Your task to perform on an android device: open app "Lyft - Rideshare, Bikes, Scooters & Transit" Image 0: 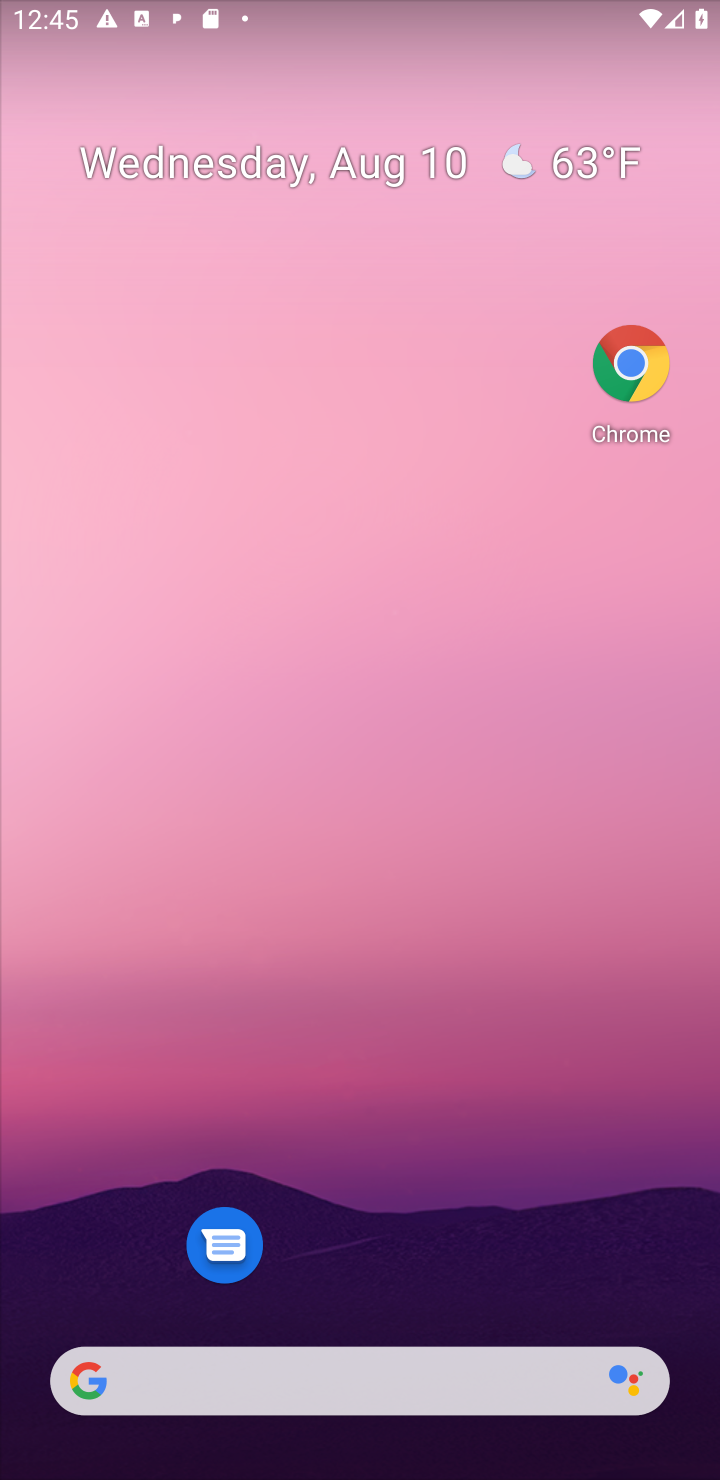
Step 0: drag from (451, 1367) to (449, 547)
Your task to perform on an android device: open app "Lyft - Rideshare, Bikes, Scooters & Transit" Image 1: 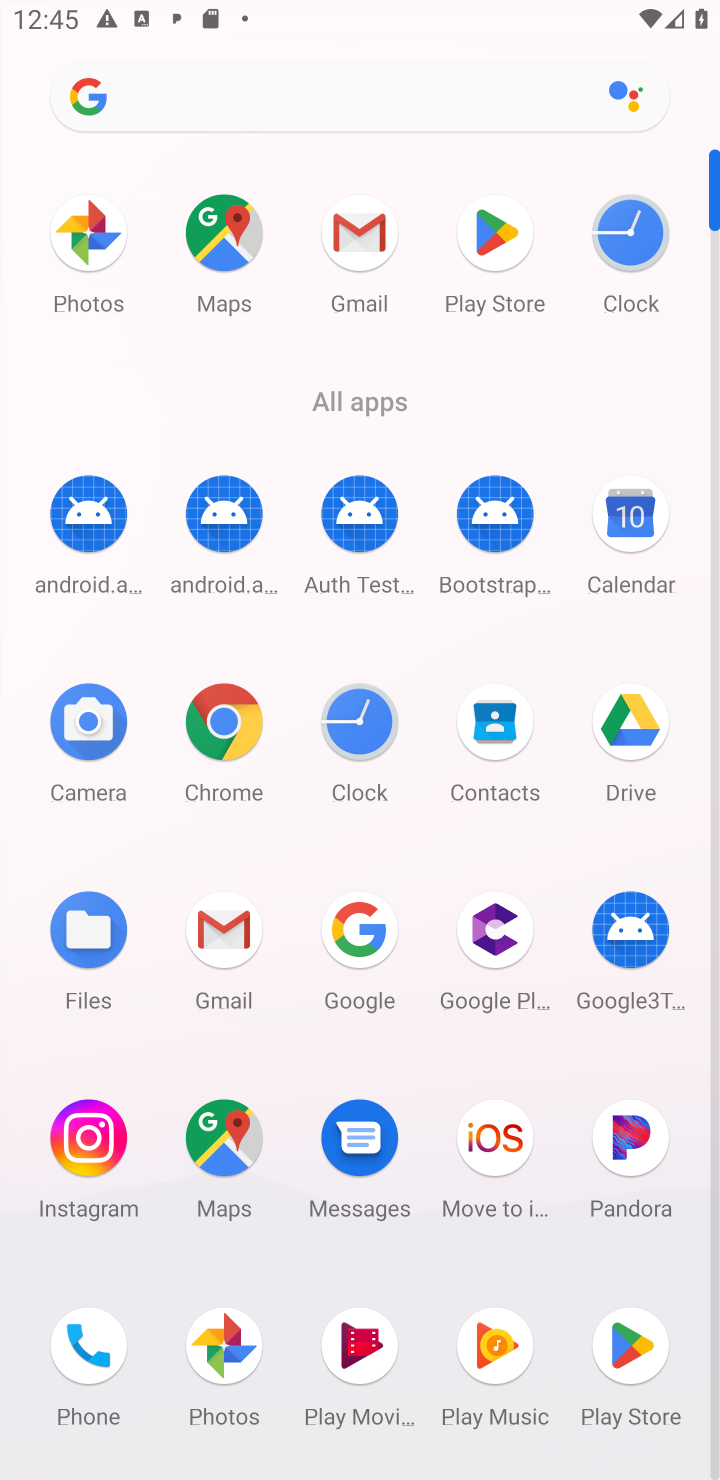
Step 1: click (483, 230)
Your task to perform on an android device: open app "Lyft - Rideshare, Bikes, Scooters & Transit" Image 2: 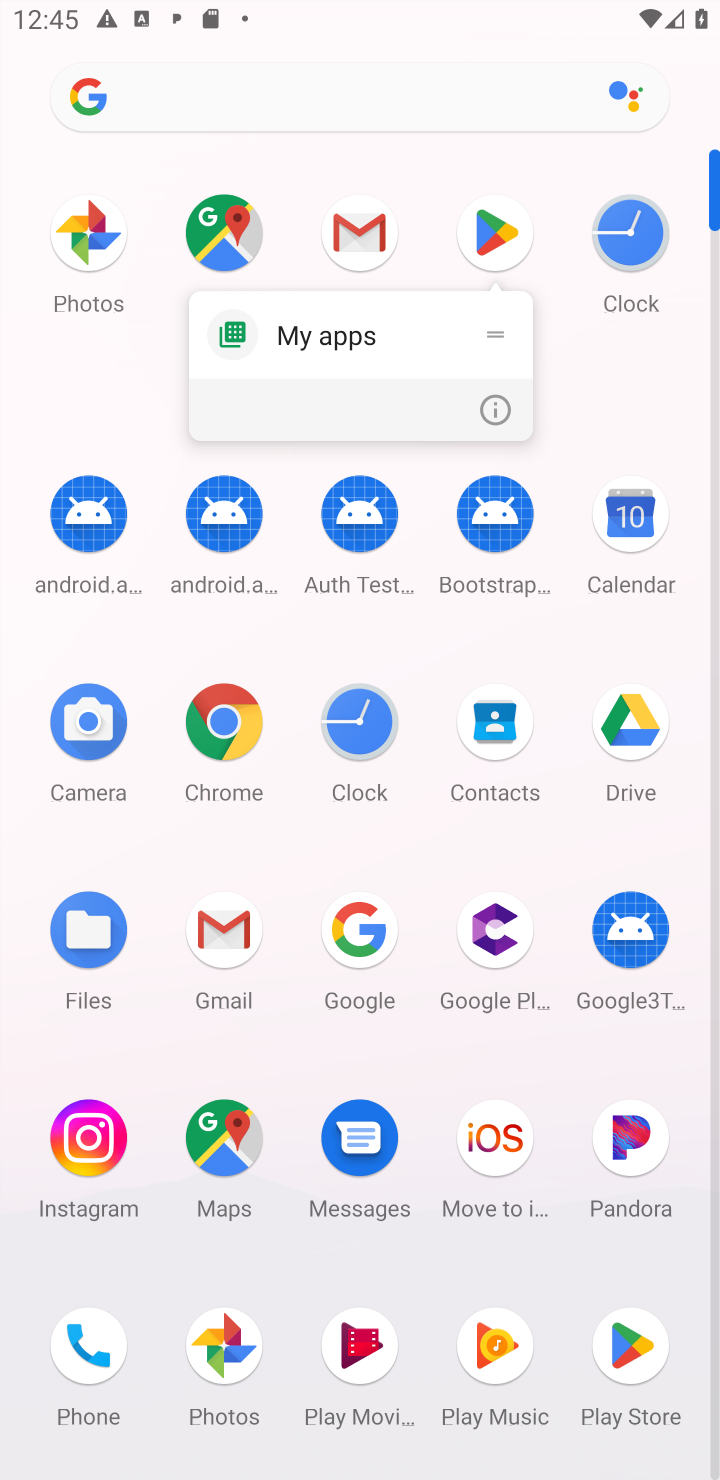
Step 2: click (488, 233)
Your task to perform on an android device: open app "Lyft - Rideshare, Bikes, Scooters & Transit" Image 3: 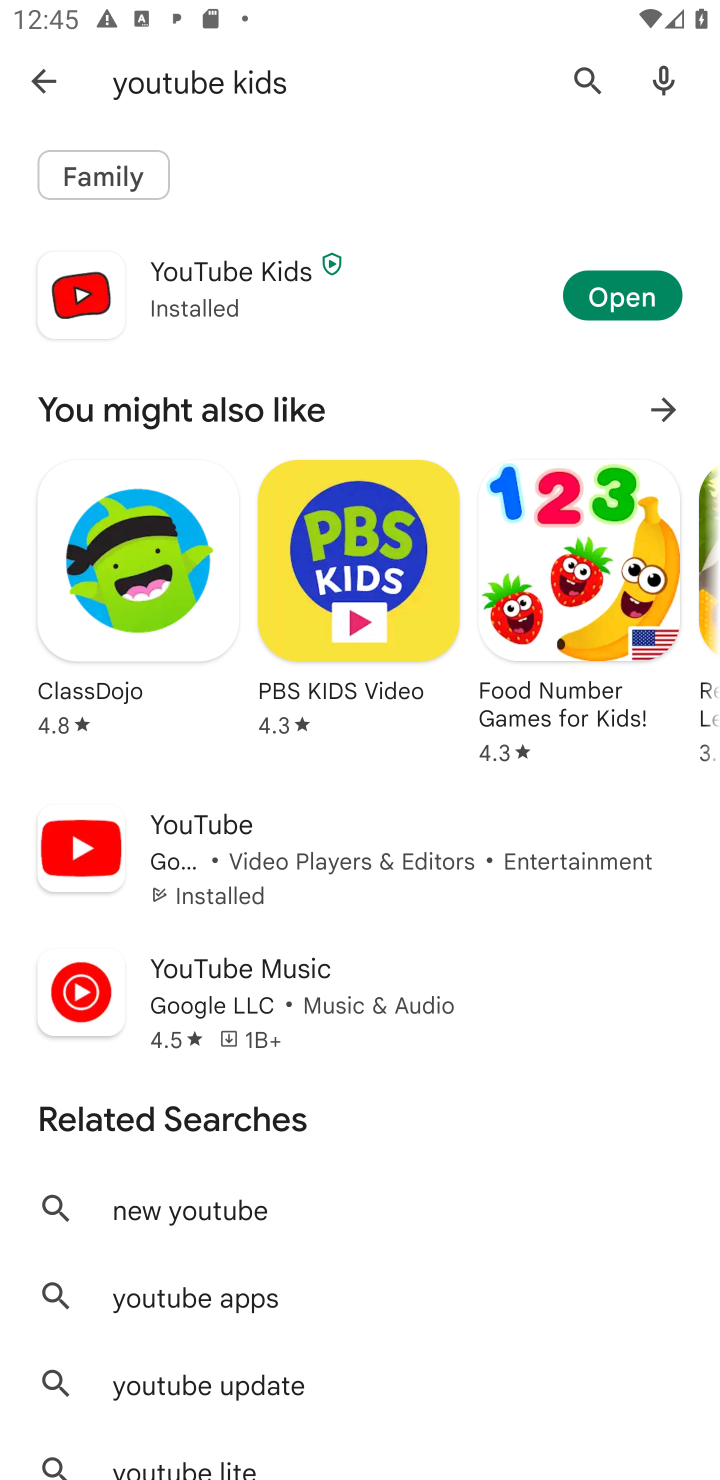
Step 3: click (586, 83)
Your task to perform on an android device: open app "Lyft - Rideshare, Bikes, Scooters & Transit" Image 4: 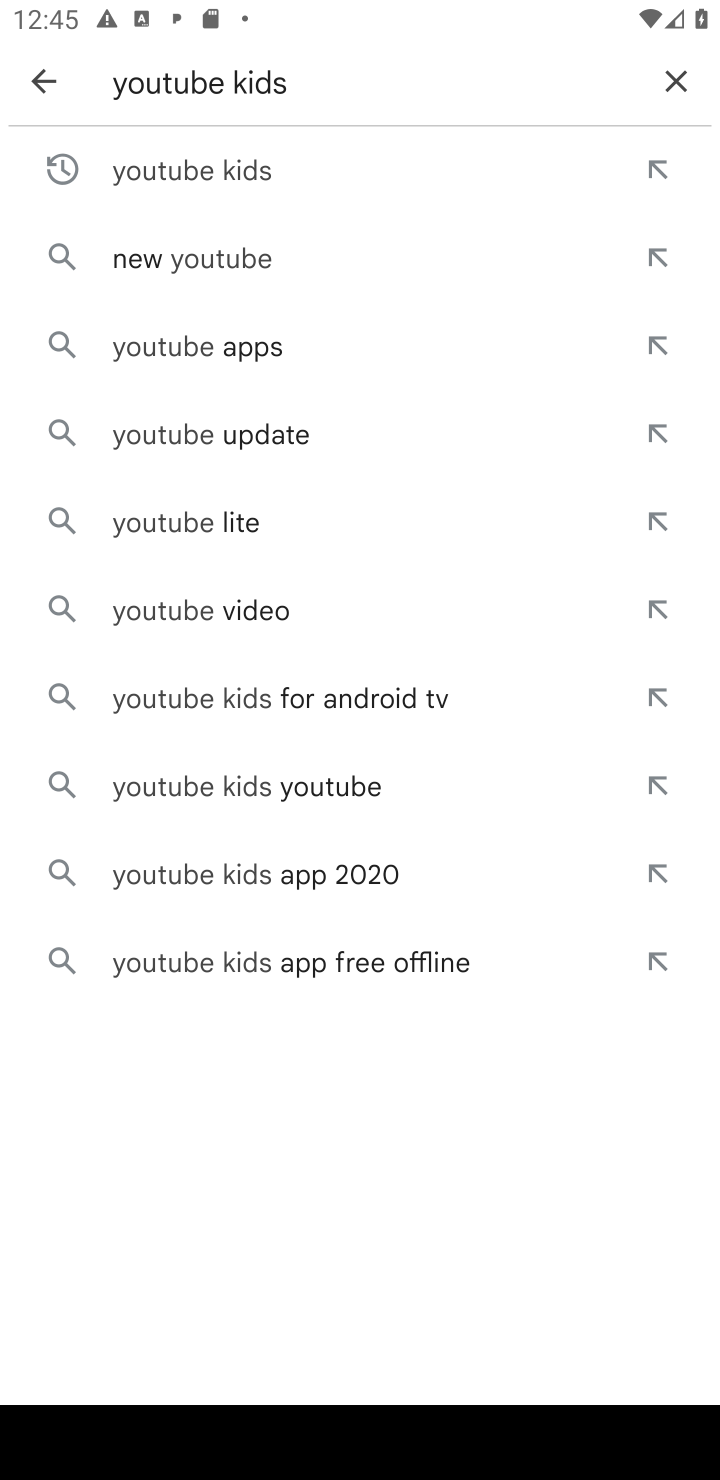
Step 4: click (664, 96)
Your task to perform on an android device: open app "Lyft - Rideshare, Bikes, Scooters & Transit" Image 5: 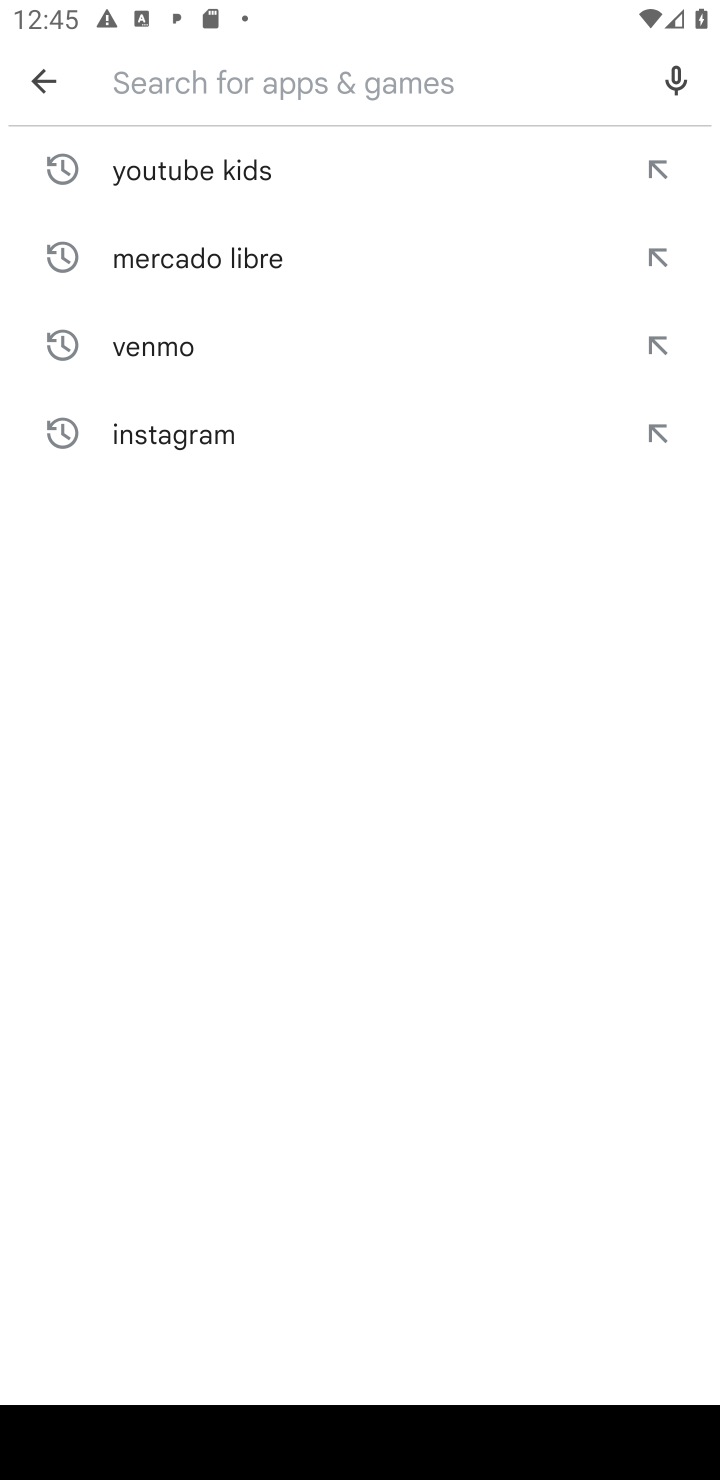
Step 5: type "Lyft - Rideshare, Bikes, Scooters & Transit"
Your task to perform on an android device: open app "Lyft - Rideshare, Bikes, Scooters & Transit" Image 6: 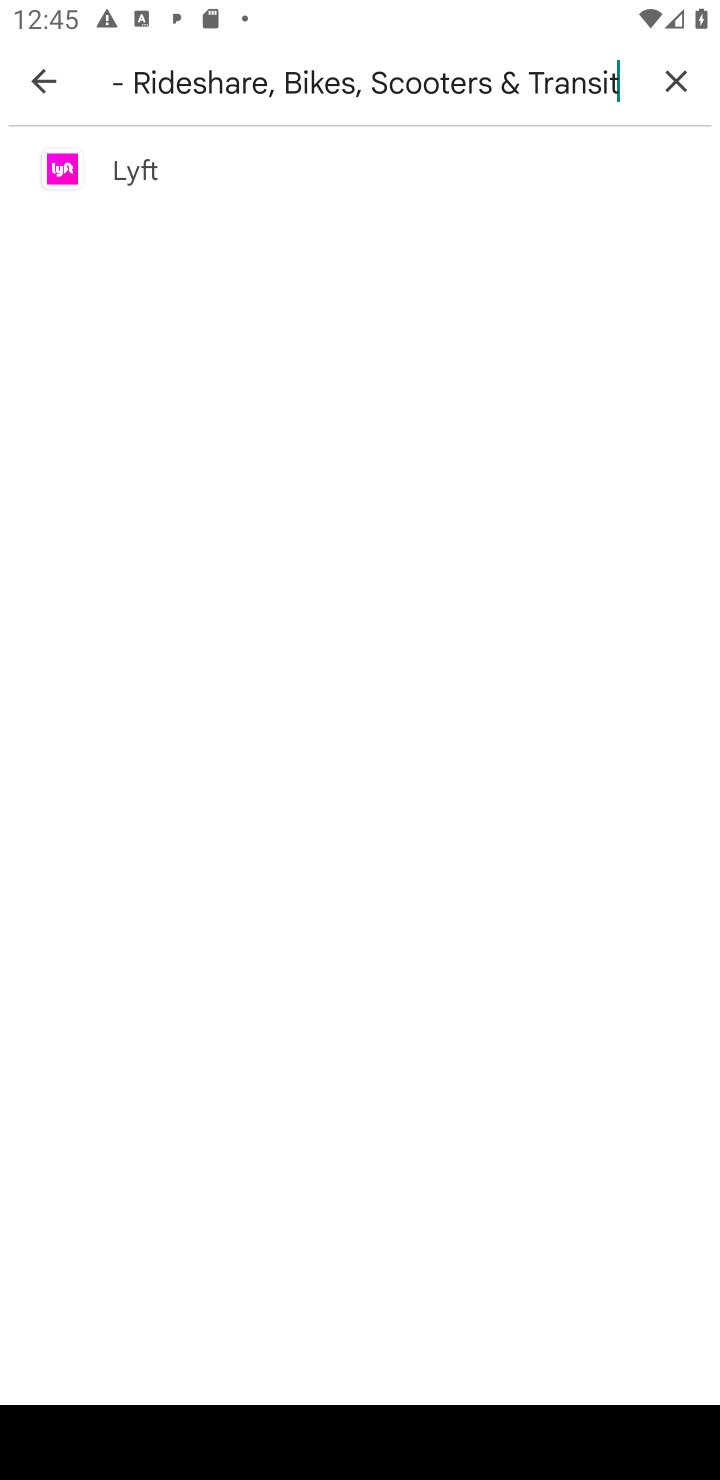
Step 6: click (136, 173)
Your task to perform on an android device: open app "Lyft - Rideshare, Bikes, Scooters & Transit" Image 7: 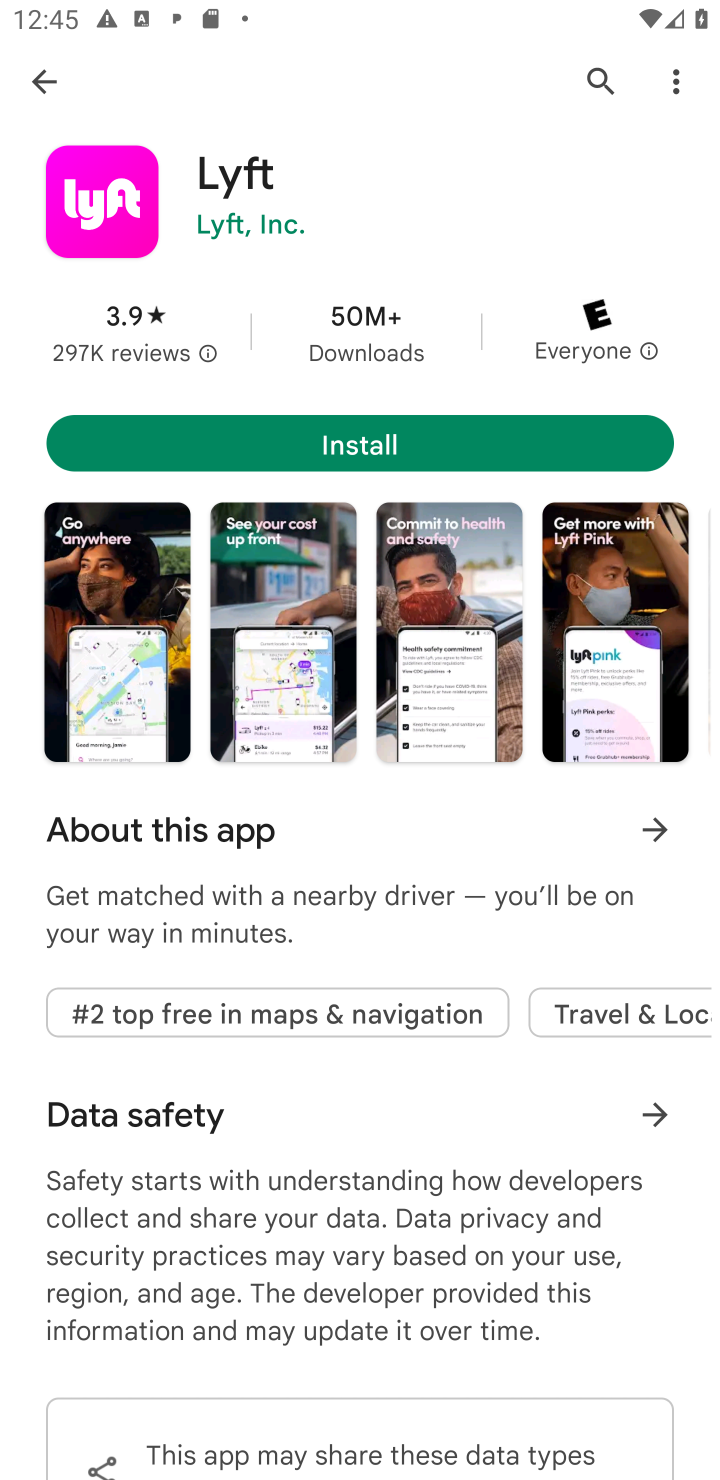
Step 7: click (356, 451)
Your task to perform on an android device: open app "Lyft - Rideshare, Bikes, Scooters & Transit" Image 8: 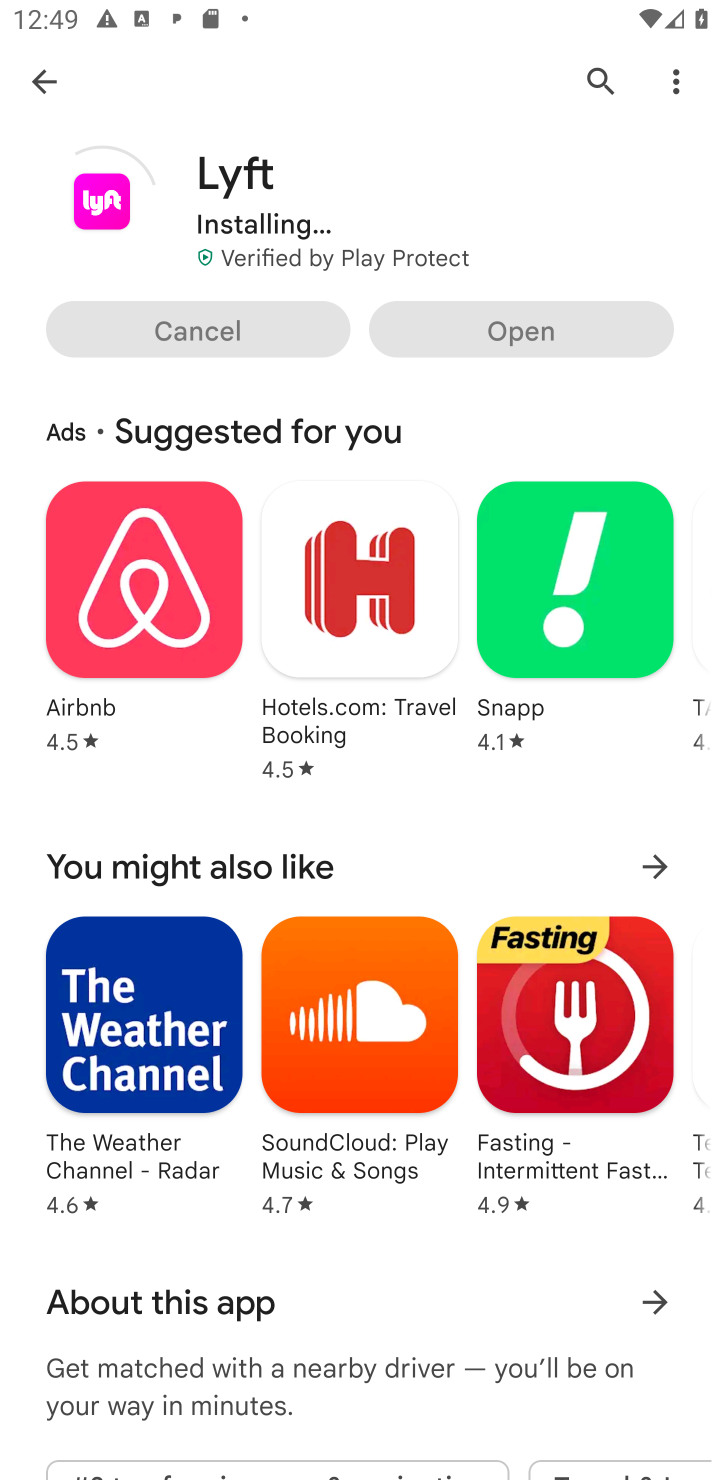
Step 8: task complete